Your task to perform on an android device: What's the weather going to be this weekend? Image 0: 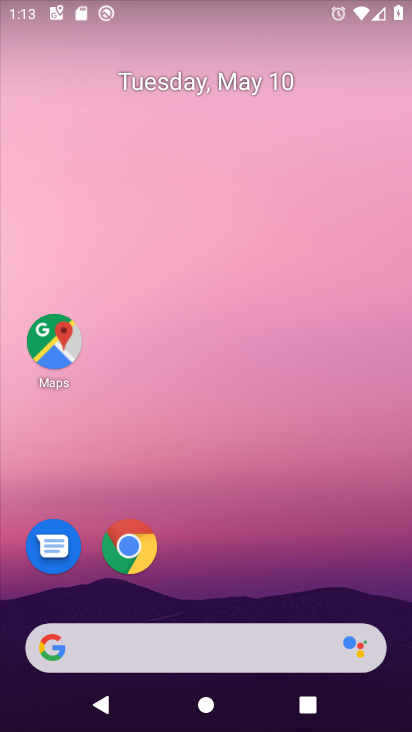
Step 0: click (349, 716)
Your task to perform on an android device: What's the weather going to be this weekend? Image 1: 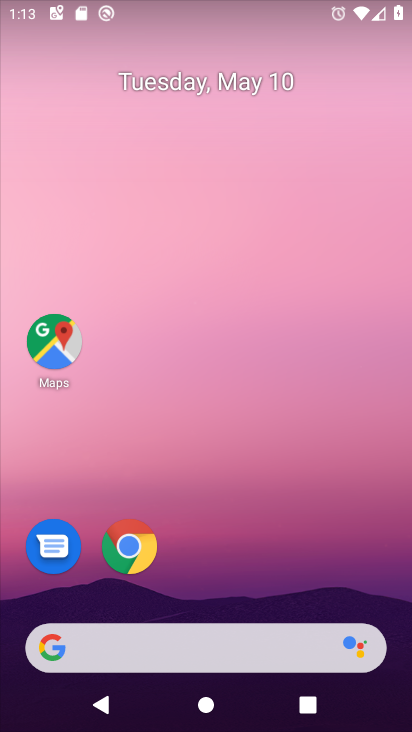
Step 1: click (136, 557)
Your task to perform on an android device: What's the weather going to be this weekend? Image 2: 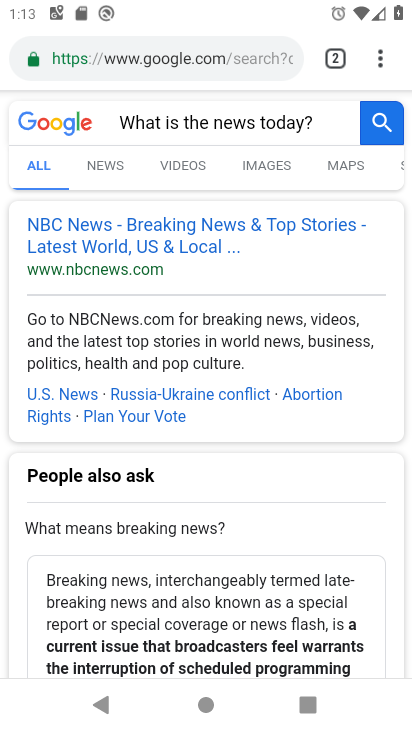
Step 2: click (241, 53)
Your task to perform on an android device: What's the weather going to be this weekend? Image 3: 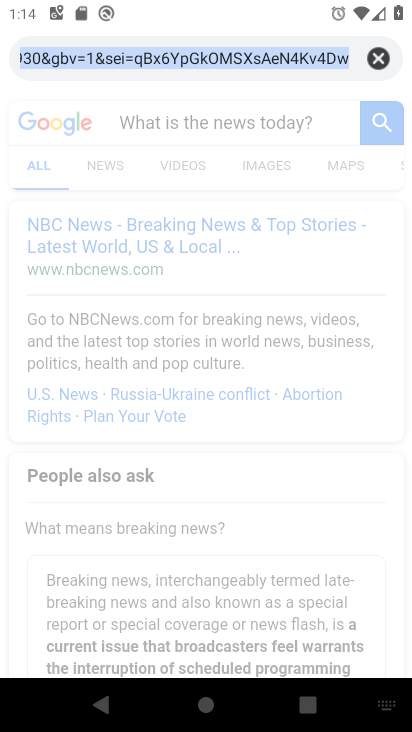
Step 3: click (372, 60)
Your task to perform on an android device: What's the weather going to be this weekend? Image 4: 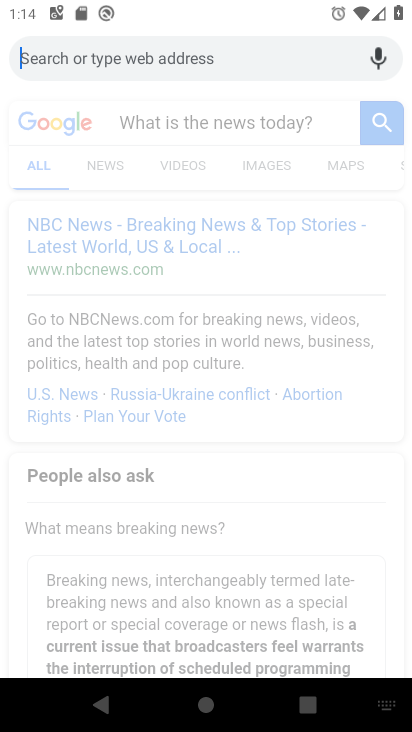
Step 4: type "What's the weather going to be this weekend?"
Your task to perform on an android device: What's the weather going to be this weekend? Image 5: 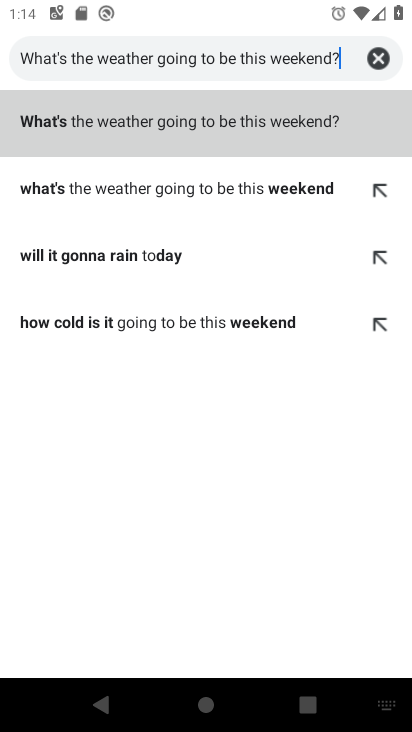
Step 5: click (115, 140)
Your task to perform on an android device: What's the weather going to be this weekend? Image 6: 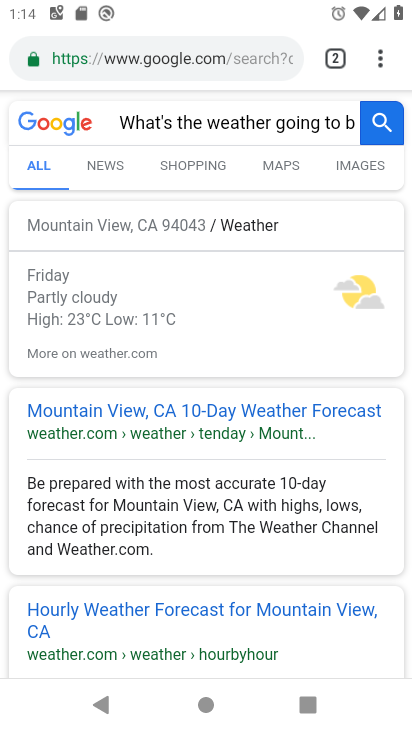
Step 6: task complete